Your task to perform on an android device: Find coffee shops on Maps Image 0: 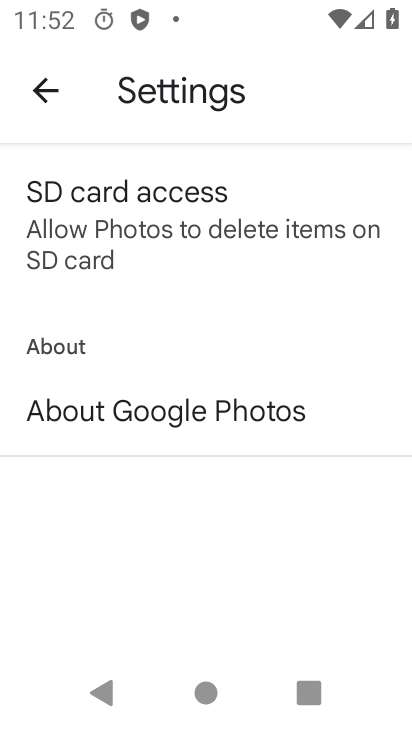
Step 0: press back button
Your task to perform on an android device: Find coffee shops on Maps Image 1: 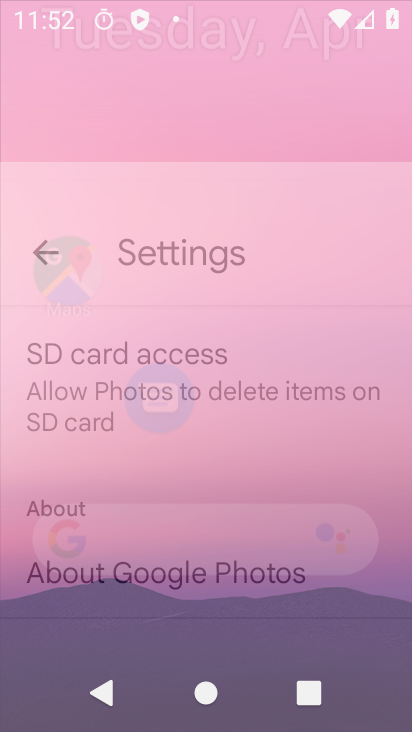
Step 1: press back button
Your task to perform on an android device: Find coffee shops on Maps Image 2: 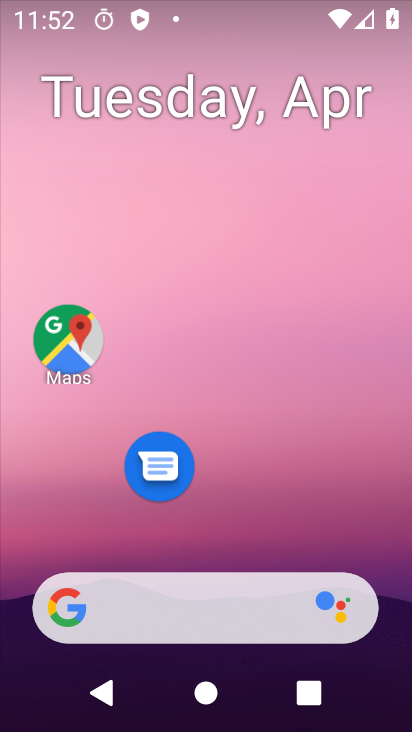
Step 2: click (59, 379)
Your task to perform on an android device: Find coffee shops on Maps Image 3: 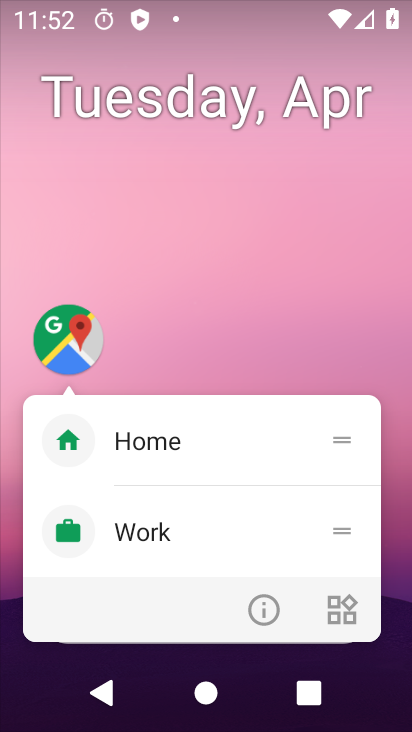
Step 3: click (118, 438)
Your task to perform on an android device: Find coffee shops on Maps Image 4: 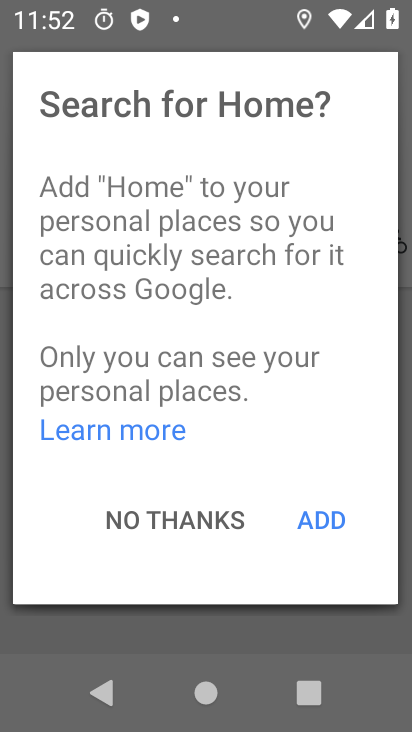
Step 4: click (171, 507)
Your task to perform on an android device: Find coffee shops on Maps Image 5: 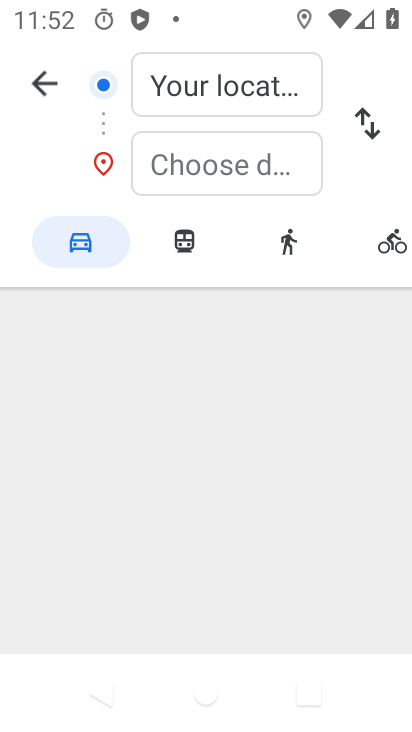
Step 5: click (32, 75)
Your task to perform on an android device: Find coffee shops on Maps Image 6: 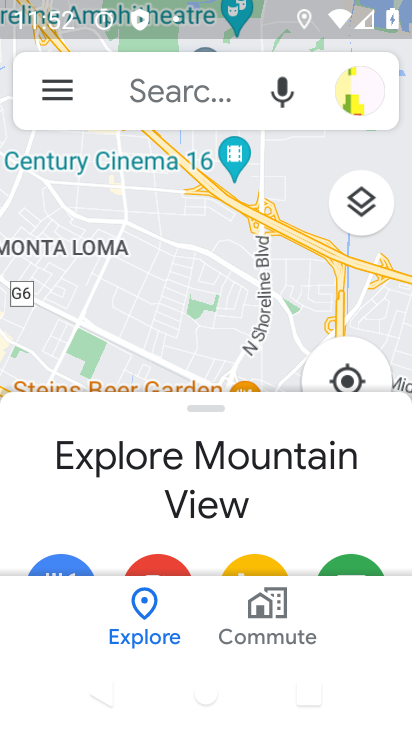
Step 6: click (177, 103)
Your task to perform on an android device: Find coffee shops on Maps Image 7: 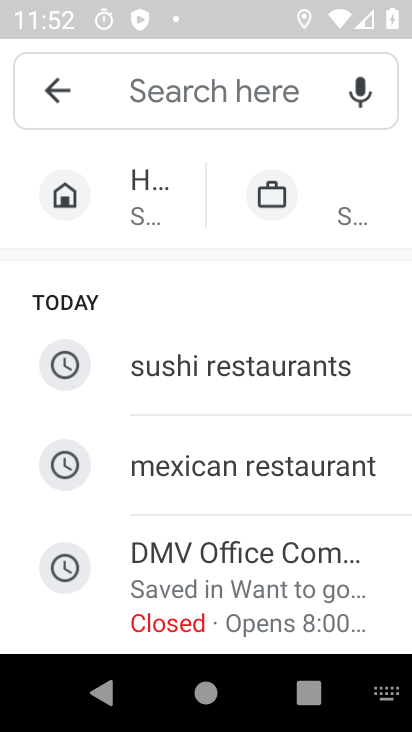
Step 7: type "coffee"
Your task to perform on an android device: Find coffee shops on Maps Image 8: 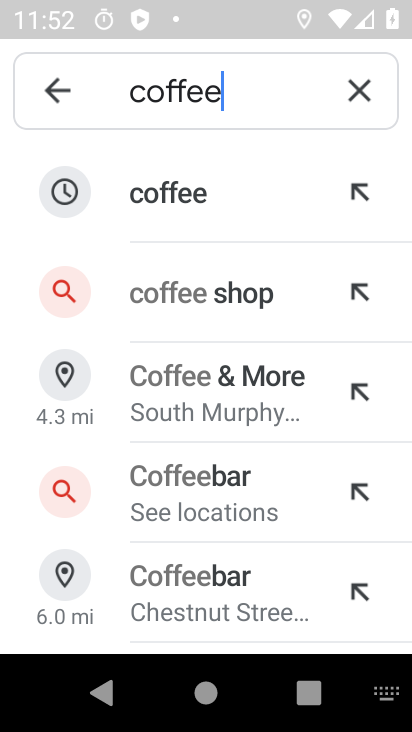
Step 8: click (246, 192)
Your task to perform on an android device: Find coffee shops on Maps Image 9: 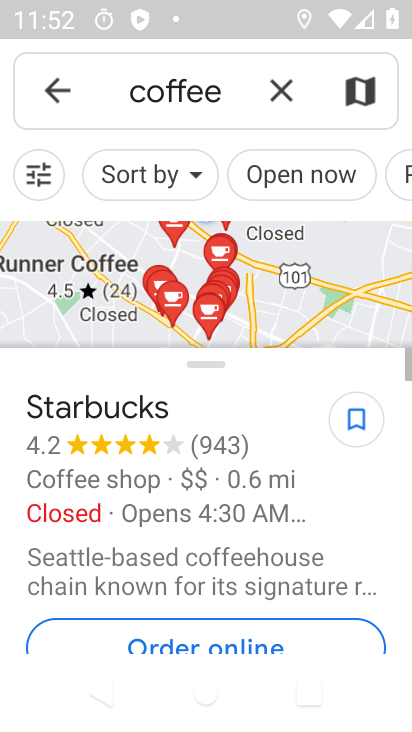
Step 9: task complete